Your task to perform on an android device: Open Google Chrome and open the bookmarks view Image 0: 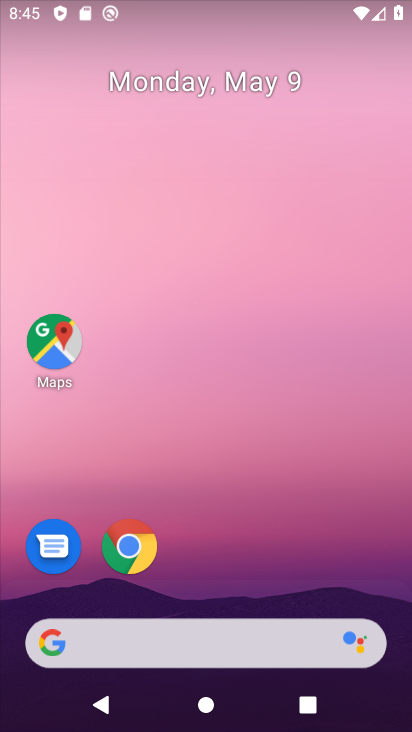
Step 0: click (140, 544)
Your task to perform on an android device: Open Google Chrome and open the bookmarks view Image 1: 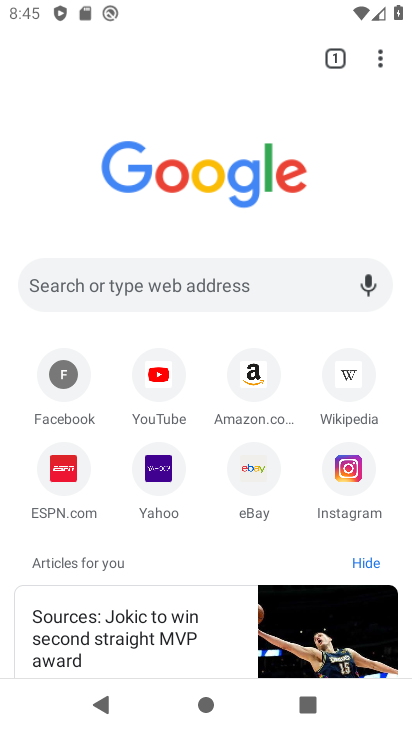
Step 1: click (380, 56)
Your task to perform on an android device: Open Google Chrome and open the bookmarks view Image 2: 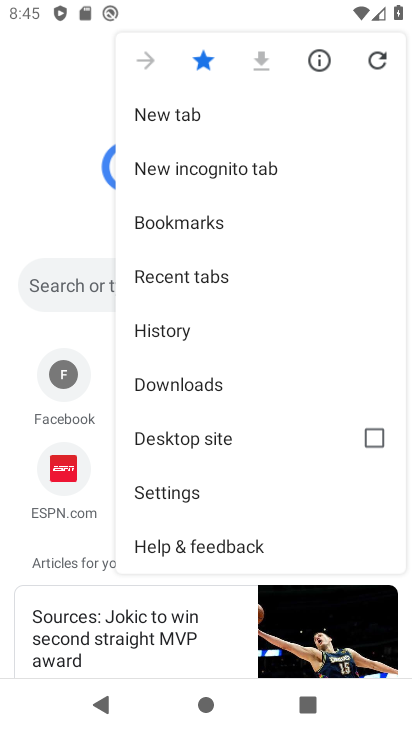
Step 2: click (274, 217)
Your task to perform on an android device: Open Google Chrome and open the bookmarks view Image 3: 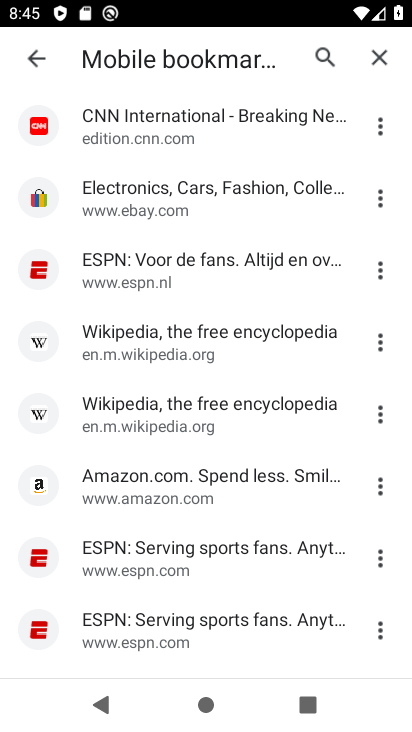
Step 3: click (208, 271)
Your task to perform on an android device: Open Google Chrome and open the bookmarks view Image 4: 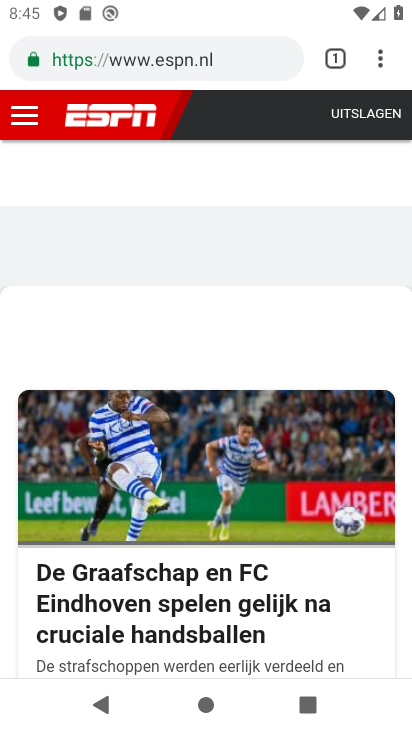
Step 4: task complete